Your task to perform on an android device: turn vacation reply on in the gmail app Image 0: 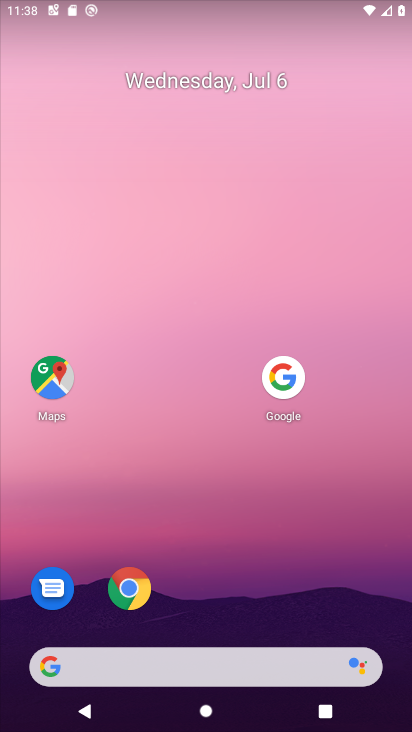
Step 0: drag from (186, 684) to (313, 63)
Your task to perform on an android device: turn vacation reply on in the gmail app Image 1: 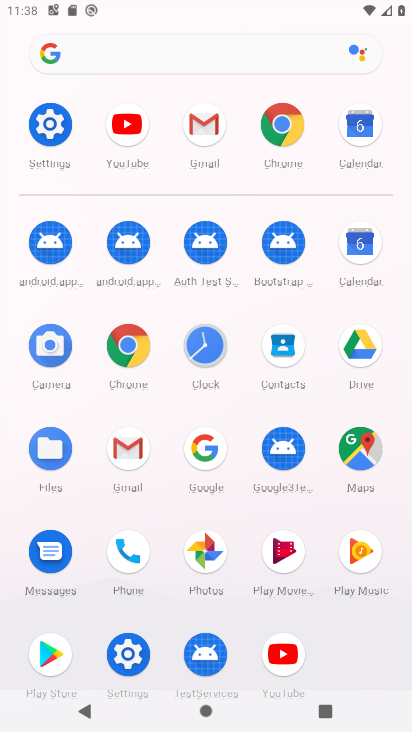
Step 1: click (194, 130)
Your task to perform on an android device: turn vacation reply on in the gmail app Image 2: 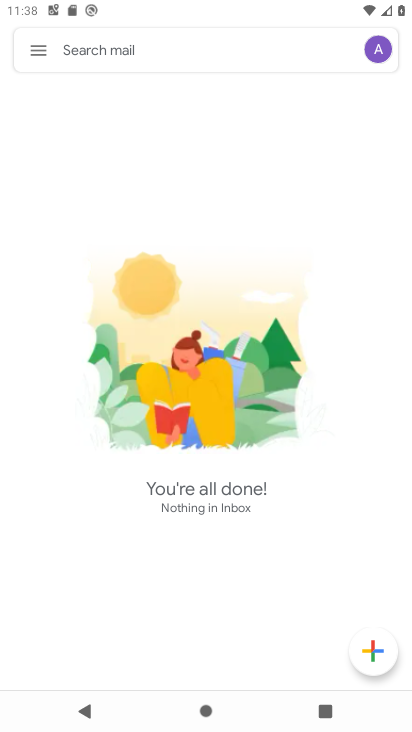
Step 2: click (43, 44)
Your task to perform on an android device: turn vacation reply on in the gmail app Image 3: 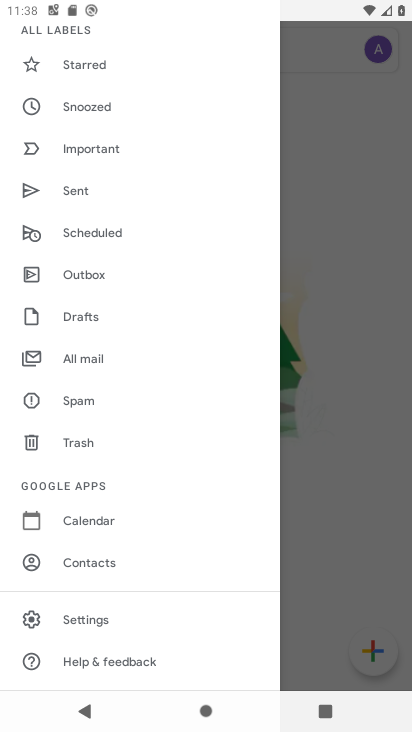
Step 3: click (90, 628)
Your task to perform on an android device: turn vacation reply on in the gmail app Image 4: 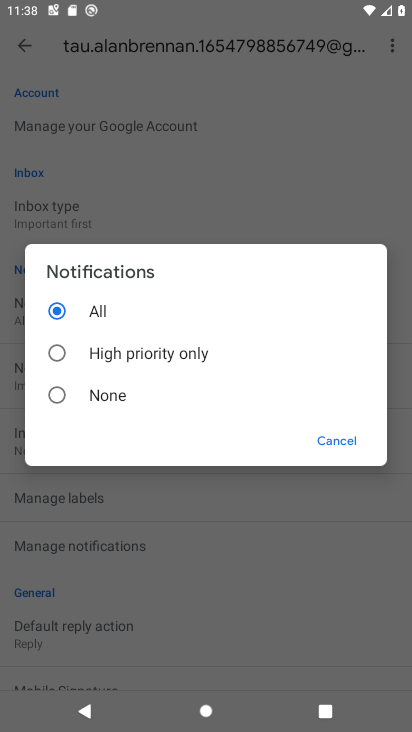
Step 4: click (331, 439)
Your task to perform on an android device: turn vacation reply on in the gmail app Image 5: 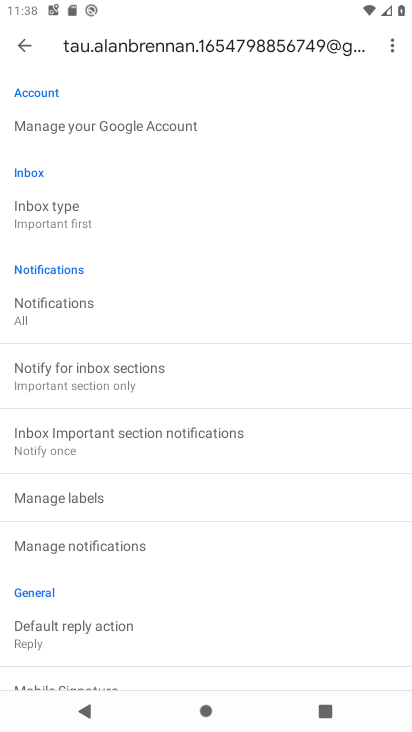
Step 5: drag from (203, 562) to (298, 212)
Your task to perform on an android device: turn vacation reply on in the gmail app Image 6: 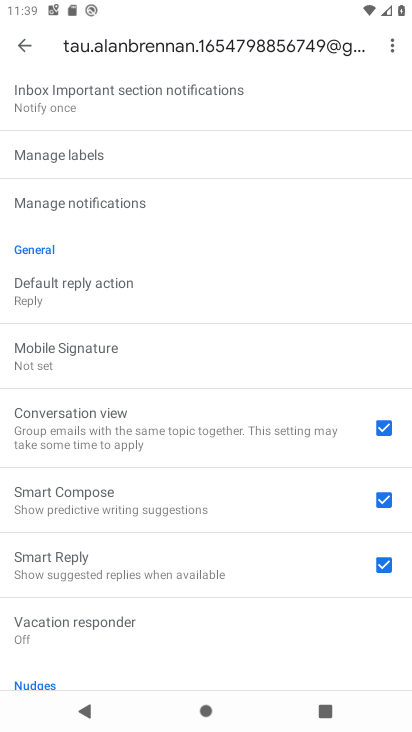
Step 6: click (128, 630)
Your task to perform on an android device: turn vacation reply on in the gmail app Image 7: 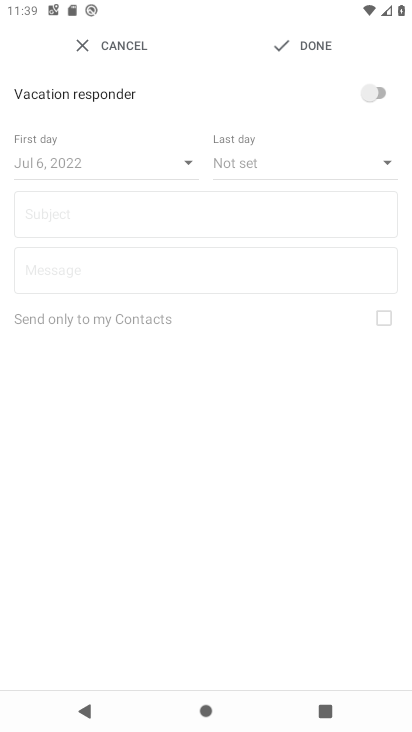
Step 7: click (375, 90)
Your task to perform on an android device: turn vacation reply on in the gmail app Image 8: 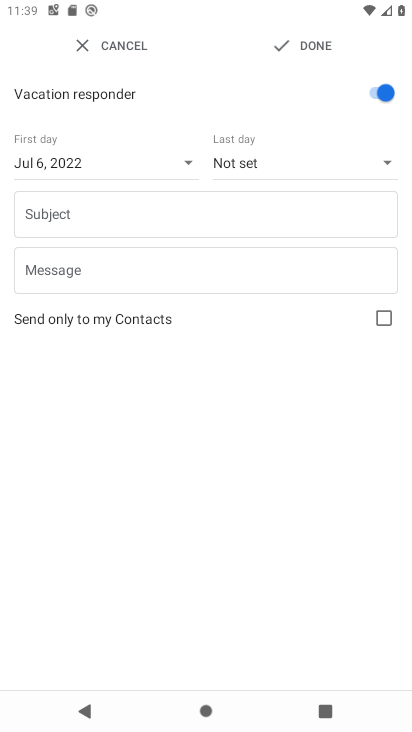
Step 8: task complete